Your task to perform on an android device: turn off smart reply in the gmail app Image 0: 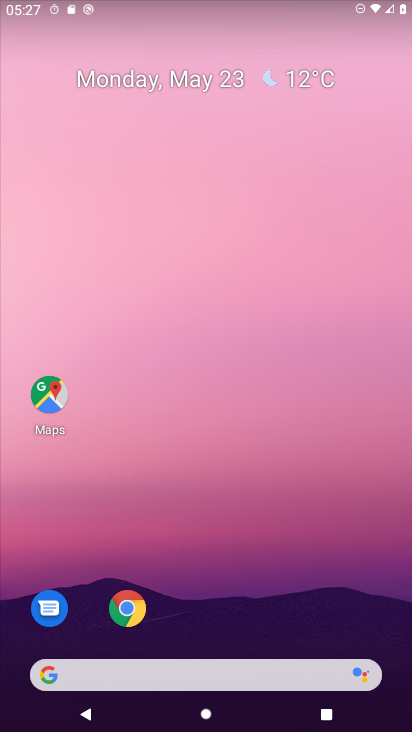
Step 0: drag from (282, 504) to (247, 55)
Your task to perform on an android device: turn off smart reply in the gmail app Image 1: 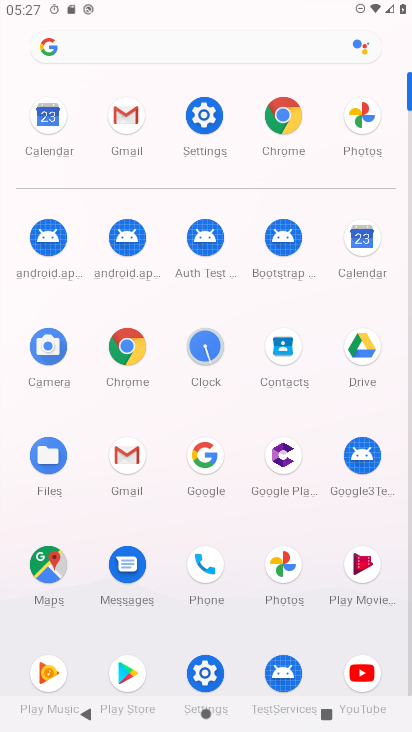
Step 1: click (147, 460)
Your task to perform on an android device: turn off smart reply in the gmail app Image 2: 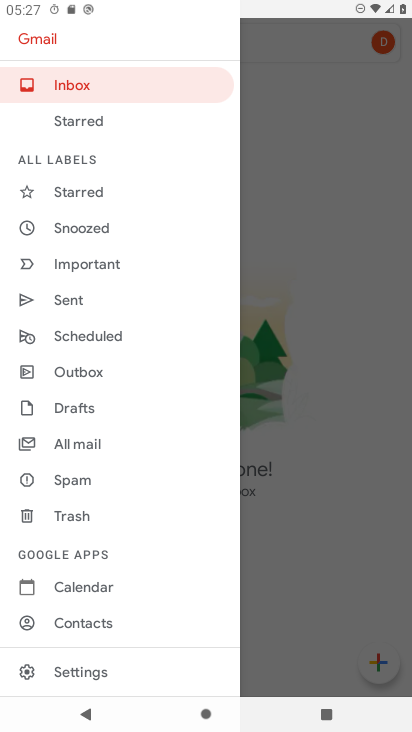
Step 2: click (113, 452)
Your task to perform on an android device: turn off smart reply in the gmail app Image 3: 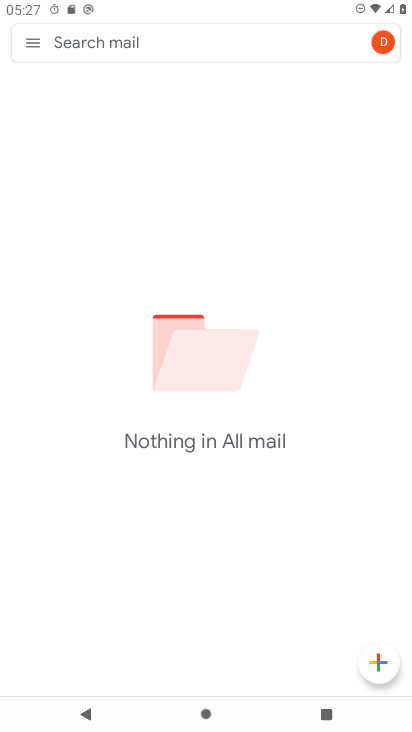
Step 3: click (29, 39)
Your task to perform on an android device: turn off smart reply in the gmail app Image 4: 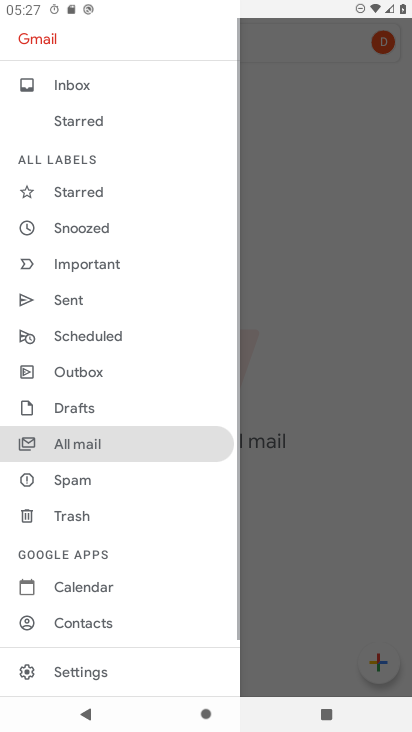
Step 4: drag from (133, 642) to (125, 116)
Your task to perform on an android device: turn off smart reply in the gmail app Image 5: 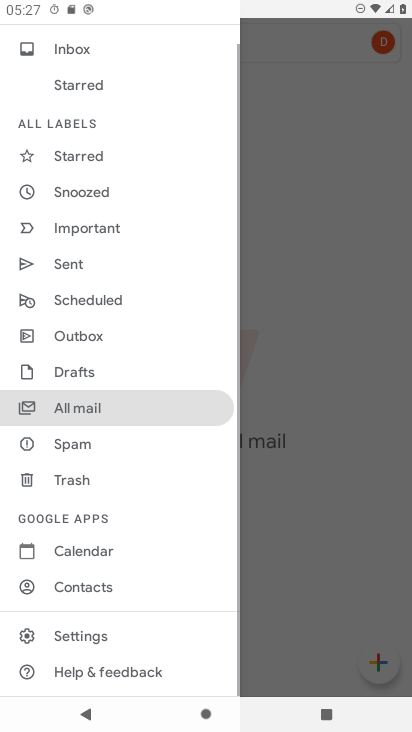
Step 5: click (116, 636)
Your task to perform on an android device: turn off smart reply in the gmail app Image 6: 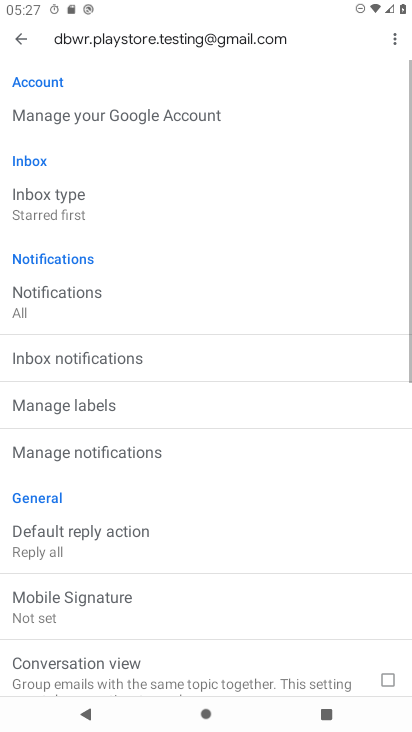
Step 6: drag from (179, 591) to (151, 35)
Your task to perform on an android device: turn off smart reply in the gmail app Image 7: 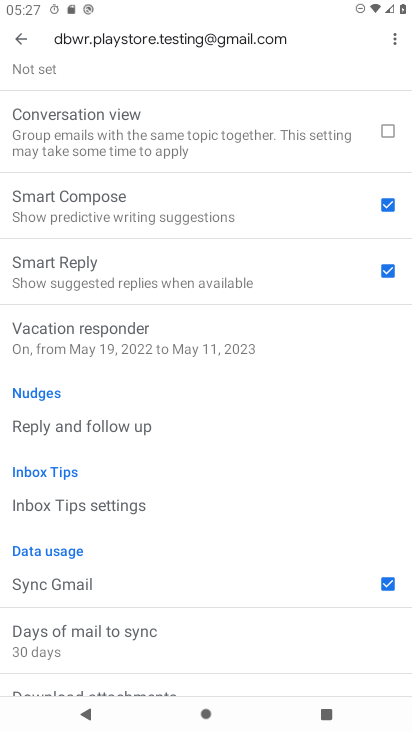
Step 7: drag from (293, 472) to (250, 217)
Your task to perform on an android device: turn off smart reply in the gmail app Image 8: 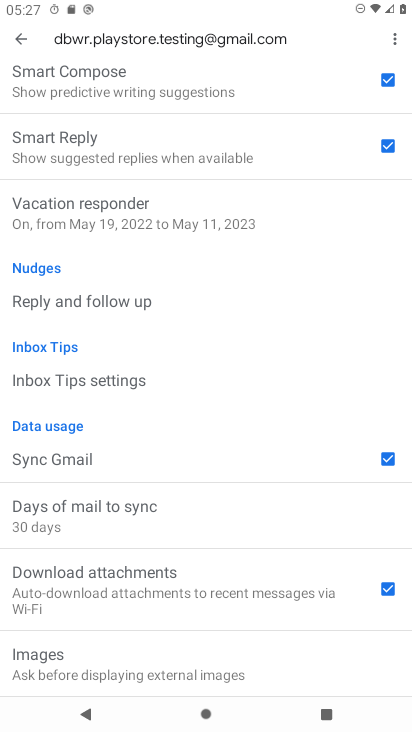
Step 8: click (379, 138)
Your task to perform on an android device: turn off smart reply in the gmail app Image 9: 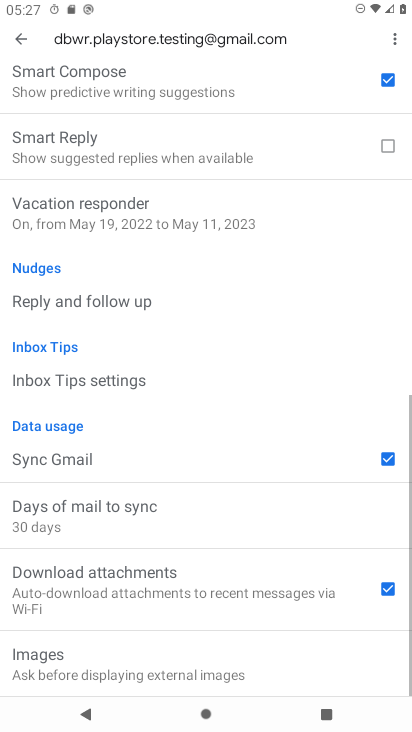
Step 9: task complete